Your task to perform on an android device: Do I have any events today? Image 0: 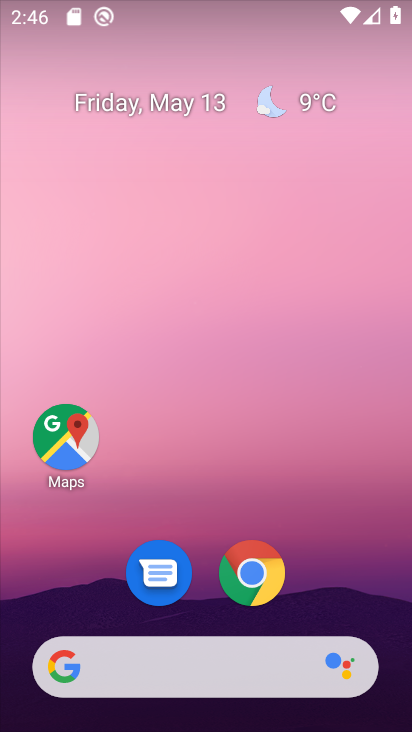
Step 0: drag from (195, 561) to (252, 47)
Your task to perform on an android device: Do I have any events today? Image 1: 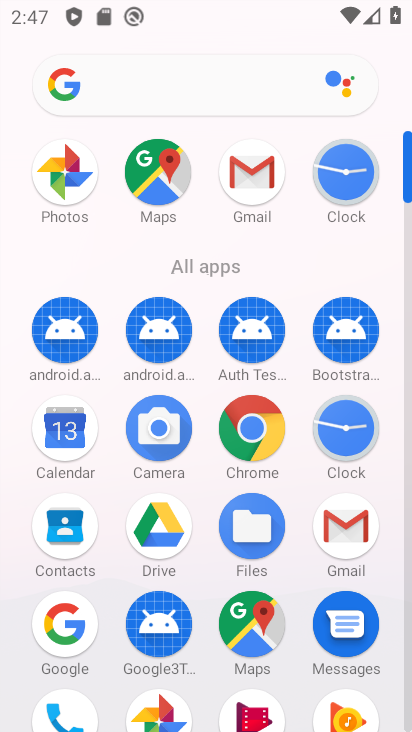
Step 1: click (56, 432)
Your task to perform on an android device: Do I have any events today? Image 2: 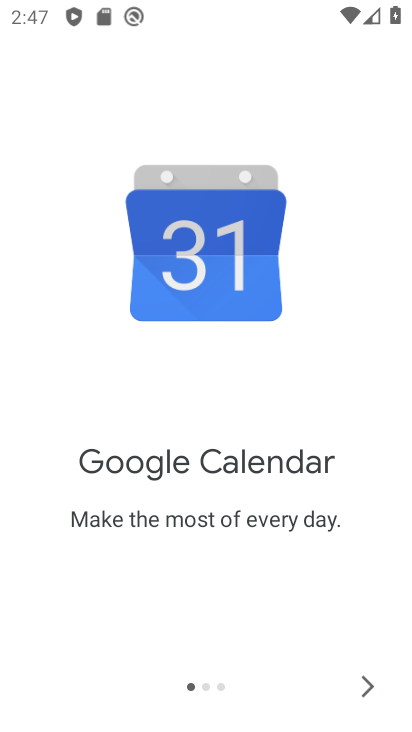
Step 2: click (354, 681)
Your task to perform on an android device: Do I have any events today? Image 3: 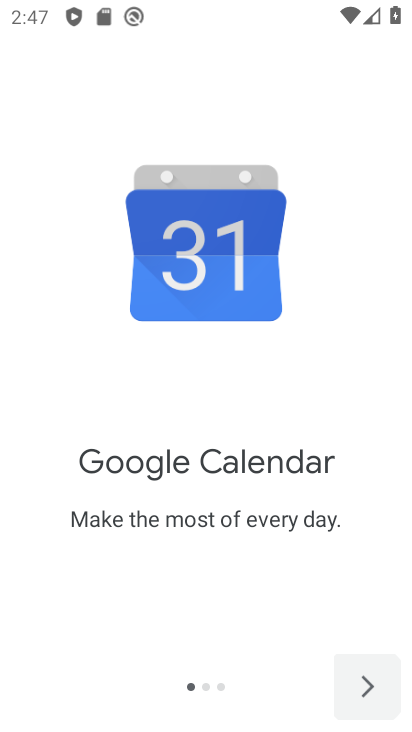
Step 3: click (354, 681)
Your task to perform on an android device: Do I have any events today? Image 4: 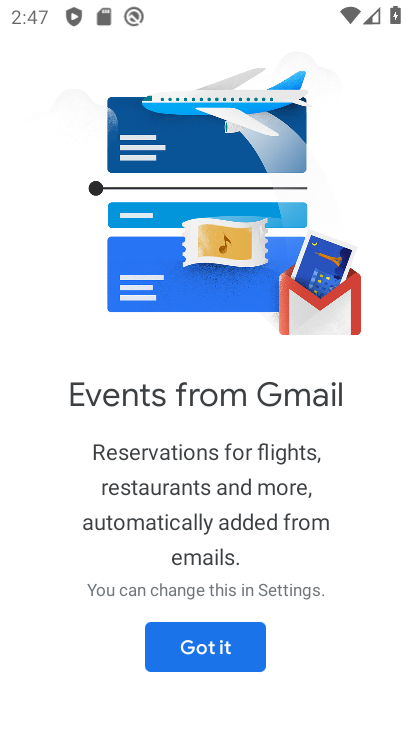
Step 4: click (198, 657)
Your task to perform on an android device: Do I have any events today? Image 5: 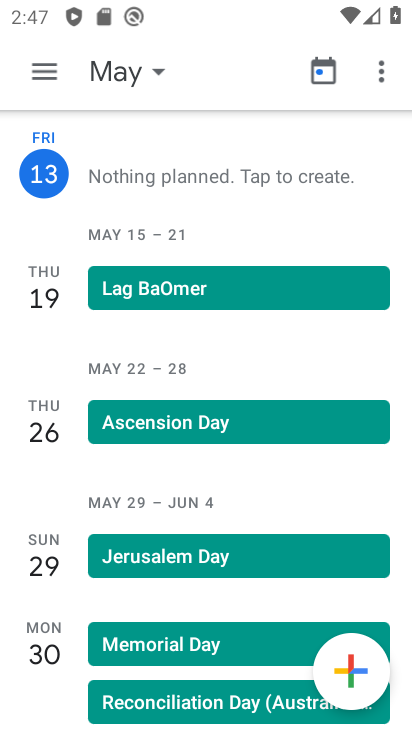
Step 5: drag from (176, 634) to (196, 255)
Your task to perform on an android device: Do I have any events today? Image 6: 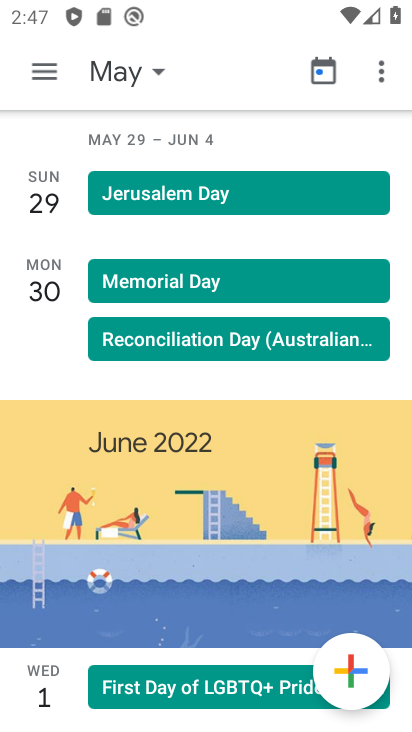
Step 6: drag from (199, 285) to (149, 718)
Your task to perform on an android device: Do I have any events today? Image 7: 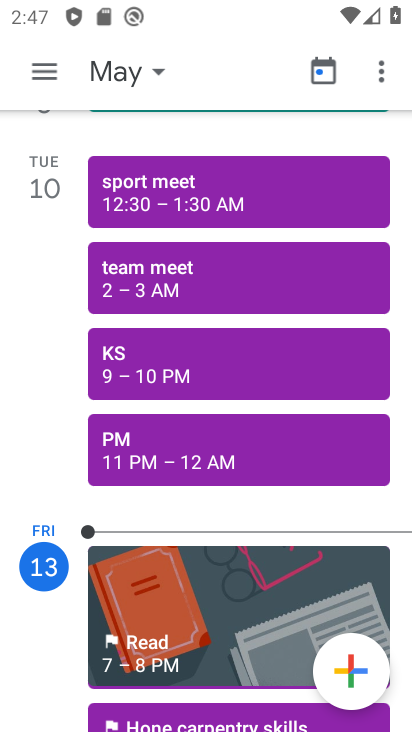
Step 7: drag from (175, 658) to (239, 232)
Your task to perform on an android device: Do I have any events today? Image 8: 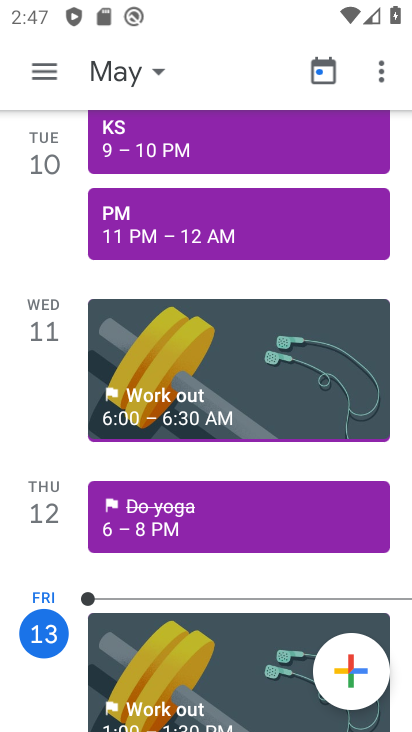
Step 8: drag from (187, 605) to (159, 252)
Your task to perform on an android device: Do I have any events today? Image 9: 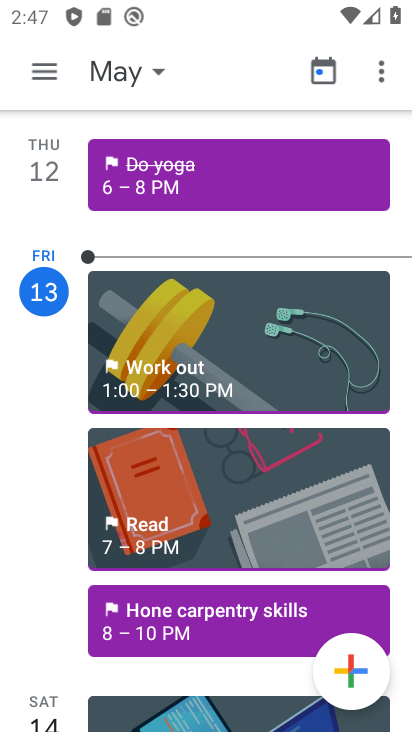
Step 9: click (193, 352)
Your task to perform on an android device: Do I have any events today? Image 10: 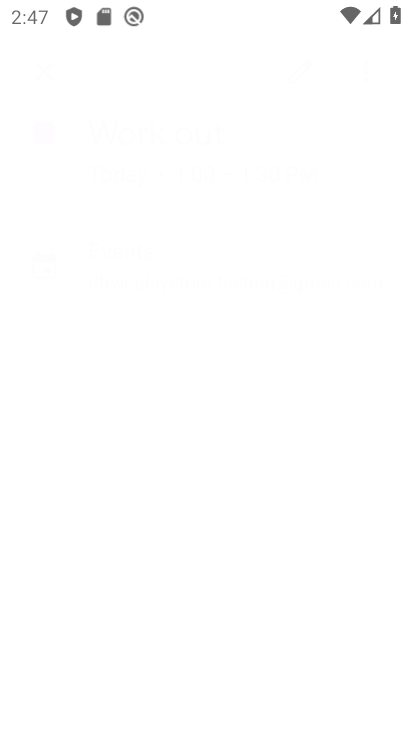
Step 10: task complete